Your task to perform on an android device: Go to Yahoo.com Image 0: 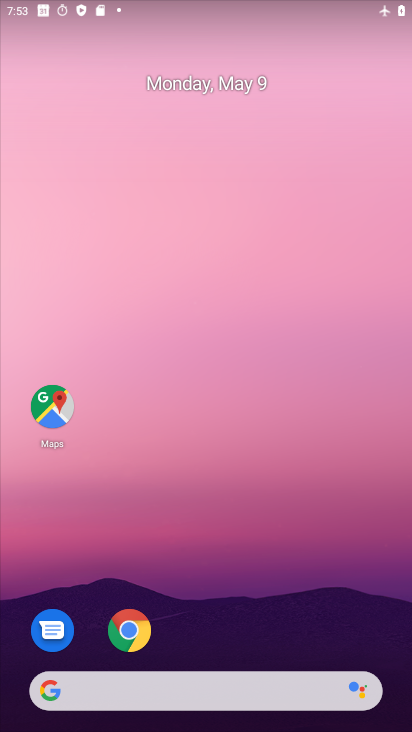
Step 0: drag from (350, 611) to (327, 143)
Your task to perform on an android device: Go to Yahoo.com Image 1: 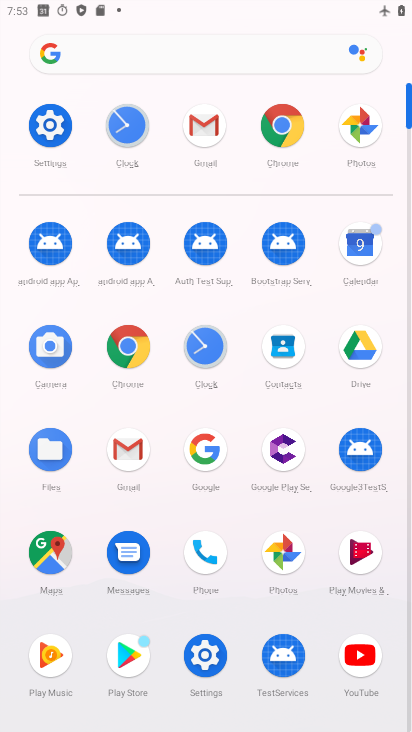
Step 1: click (140, 349)
Your task to perform on an android device: Go to Yahoo.com Image 2: 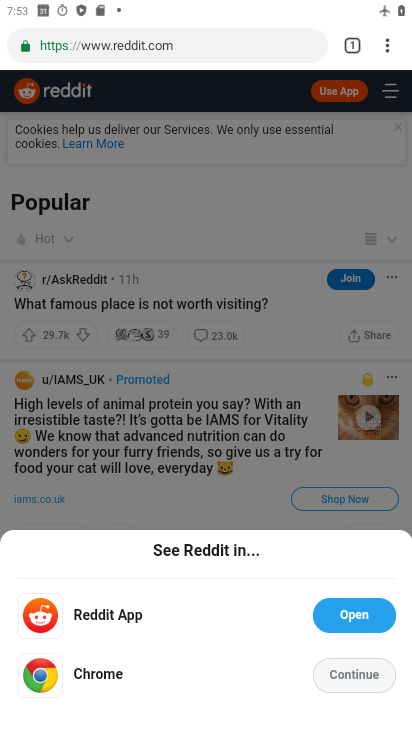
Step 2: click (168, 52)
Your task to perform on an android device: Go to Yahoo.com Image 3: 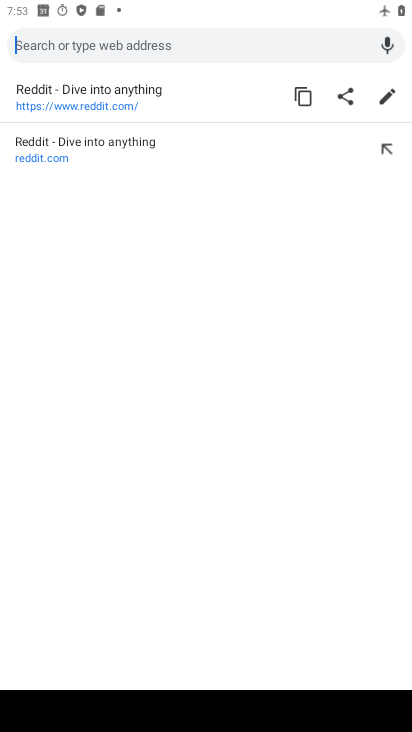
Step 3: type "yahoo.com"
Your task to perform on an android device: Go to Yahoo.com Image 4: 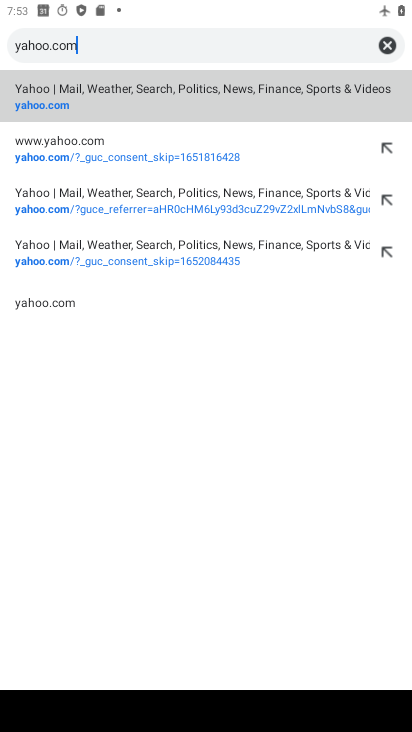
Step 4: click (78, 111)
Your task to perform on an android device: Go to Yahoo.com Image 5: 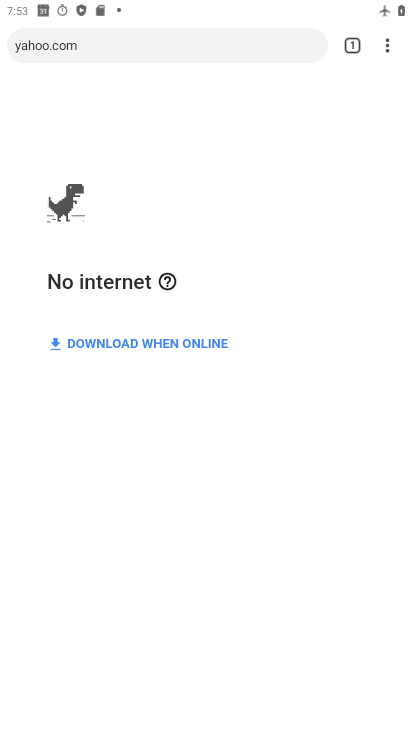
Step 5: task complete